Your task to perform on an android device: turn smart compose on in the gmail app Image 0: 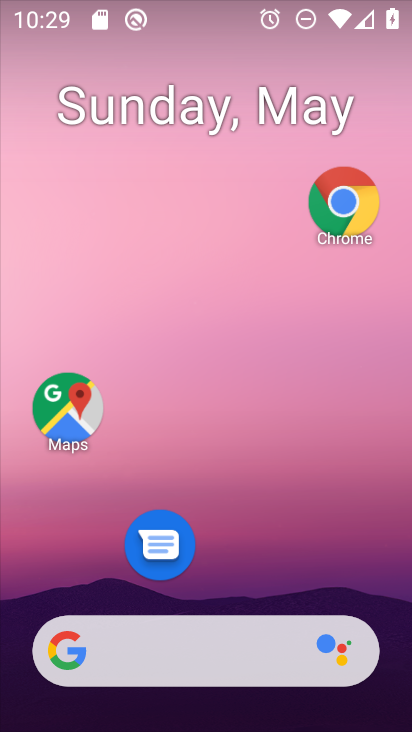
Step 0: drag from (244, 600) to (343, 37)
Your task to perform on an android device: turn smart compose on in the gmail app Image 1: 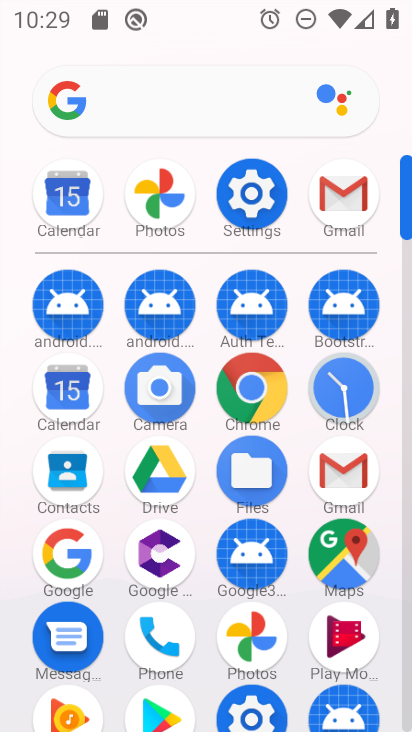
Step 1: click (333, 471)
Your task to perform on an android device: turn smart compose on in the gmail app Image 2: 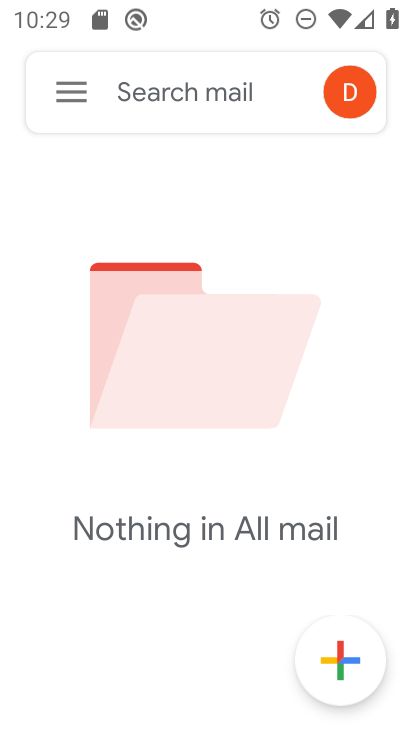
Step 2: click (56, 96)
Your task to perform on an android device: turn smart compose on in the gmail app Image 3: 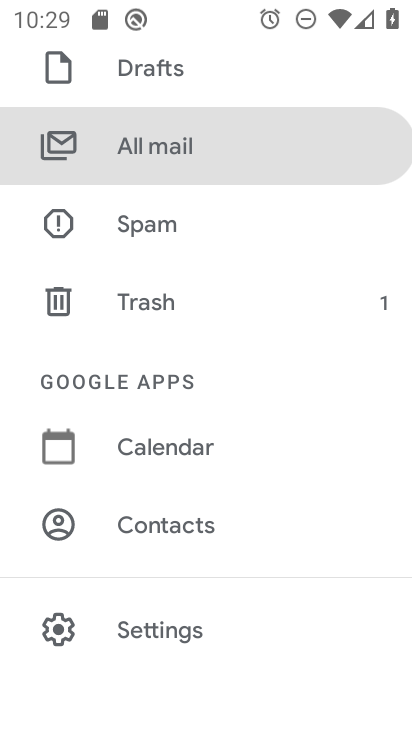
Step 3: click (192, 624)
Your task to perform on an android device: turn smart compose on in the gmail app Image 4: 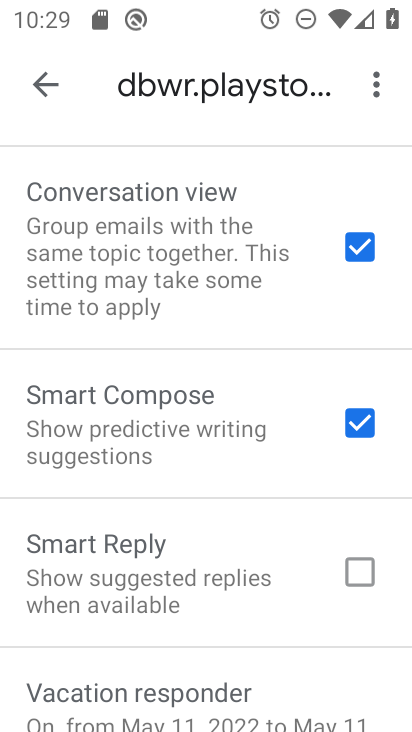
Step 4: task complete